Your task to perform on an android device: change keyboard looks Image 0: 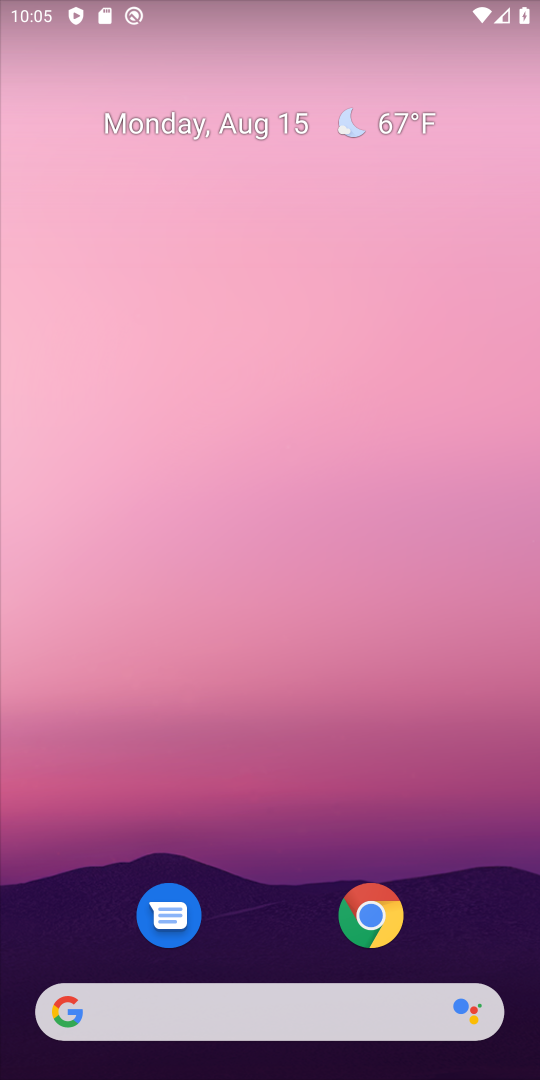
Step 0: drag from (308, 864) to (322, 9)
Your task to perform on an android device: change keyboard looks Image 1: 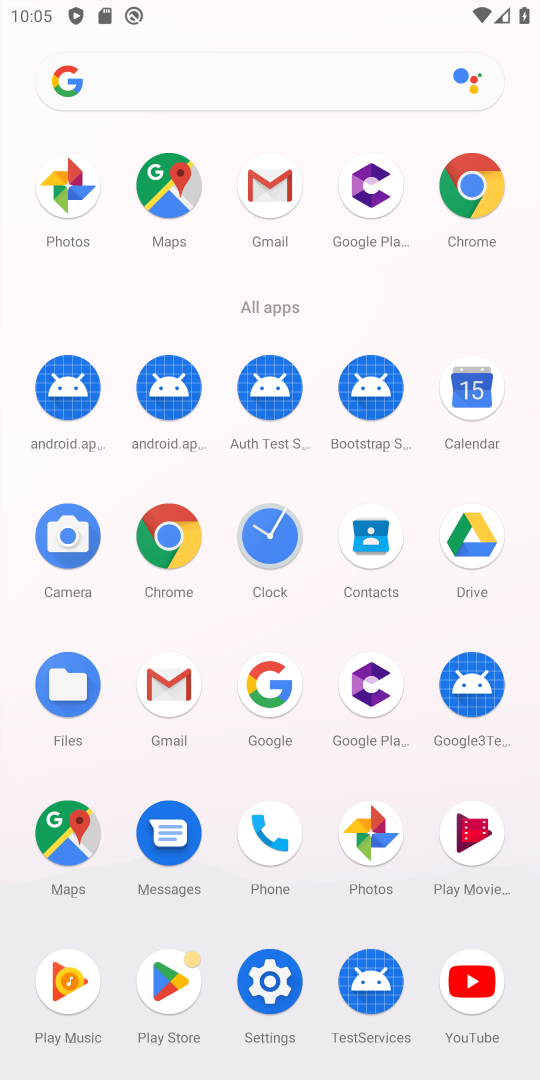
Step 1: click (270, 994)
Your task to perform on an android device: change keyboard looks Image 2: 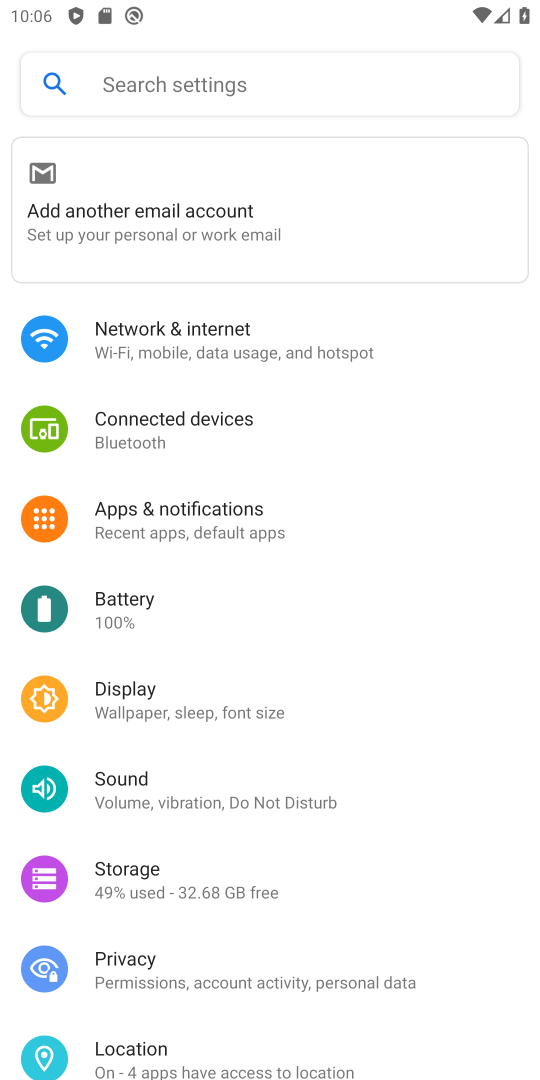
Step 2: drag from (385, 943) to (340, 412)
Your task to perform on an android device: change keyboard looks Image 3: 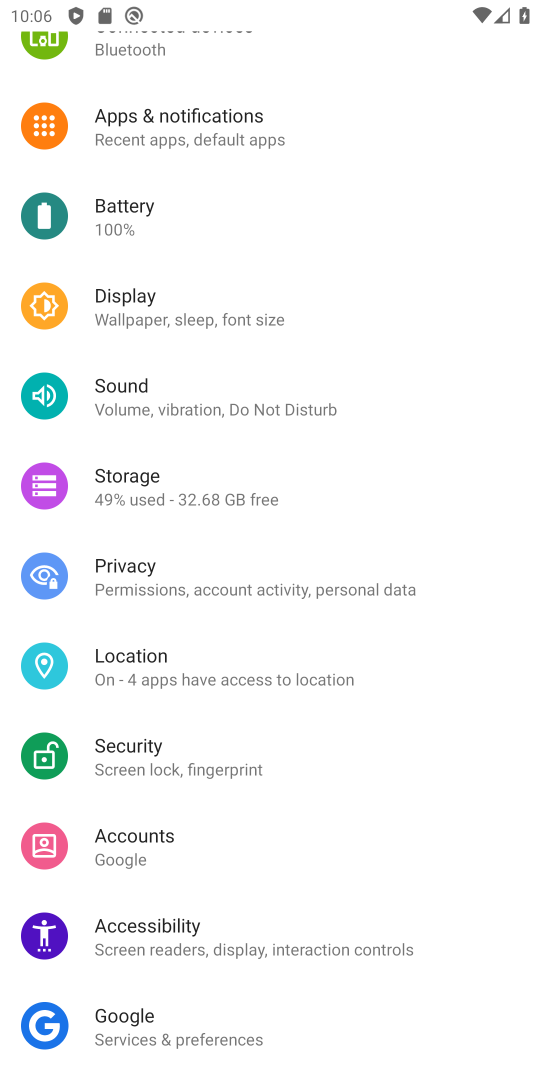
Step 3: drag from (376, 980) to (377, 200)
Your task to perform on an android device: change keyboard looks Image 4: 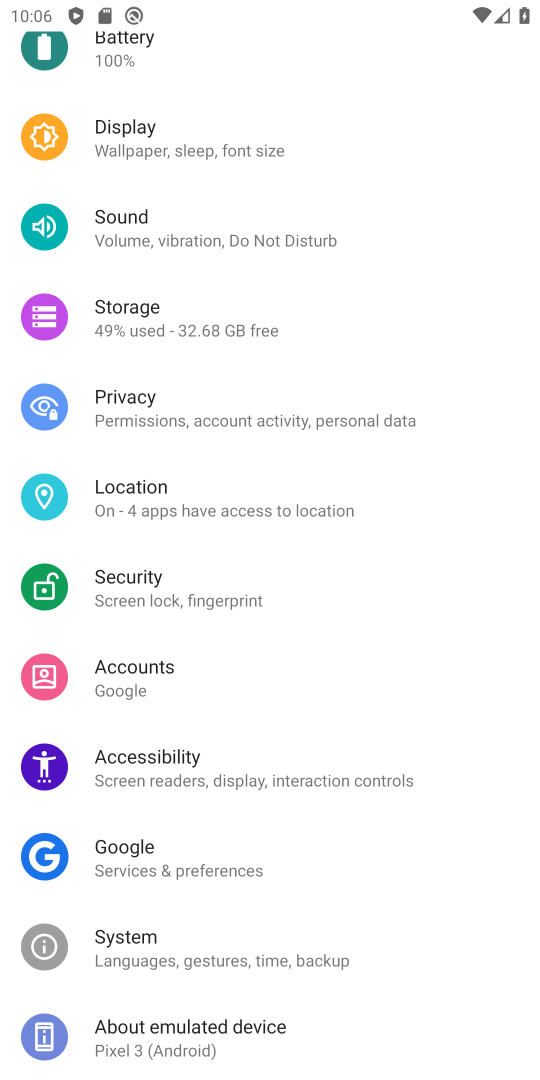
Step 4: click (176, 949)
Your task to perform on an android device: change keyboard looks Image 5: 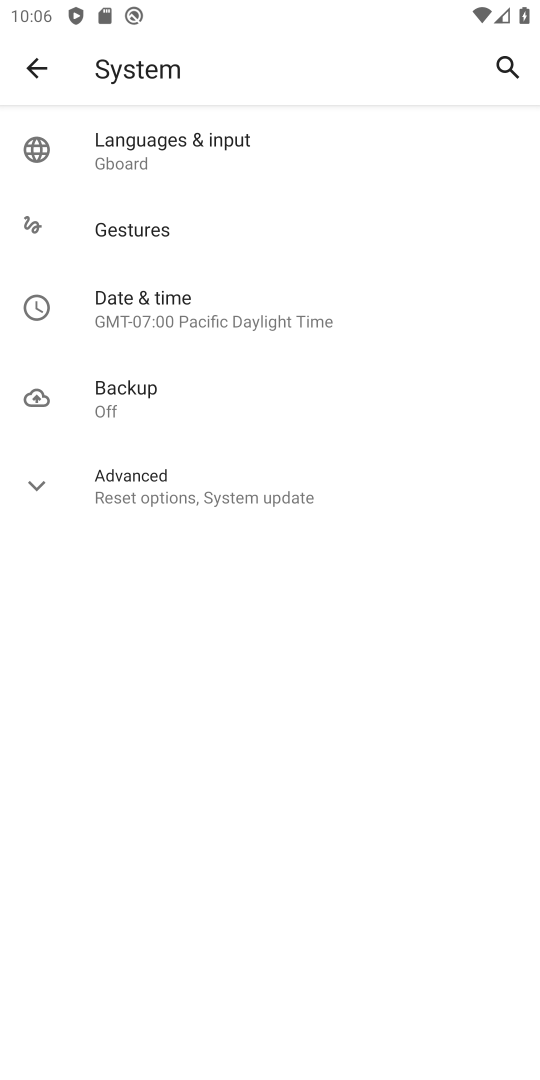
Step 5: click (214, 130)
Your task to perform on an android device: change keyboard looks Image 6: 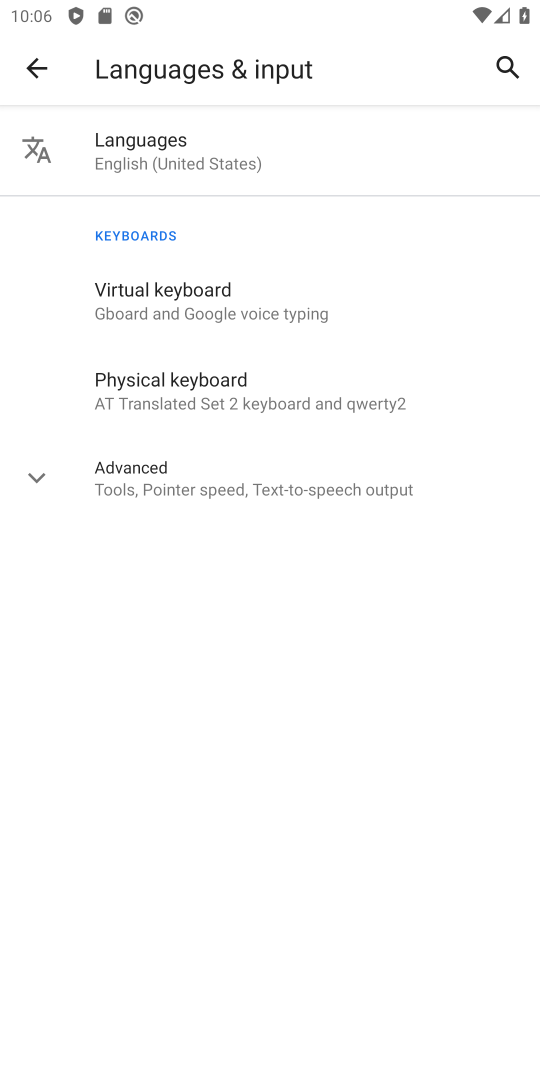
Step 6: click (211, 319)
Your task to perform on an android device: change keyboard looks Image 7: 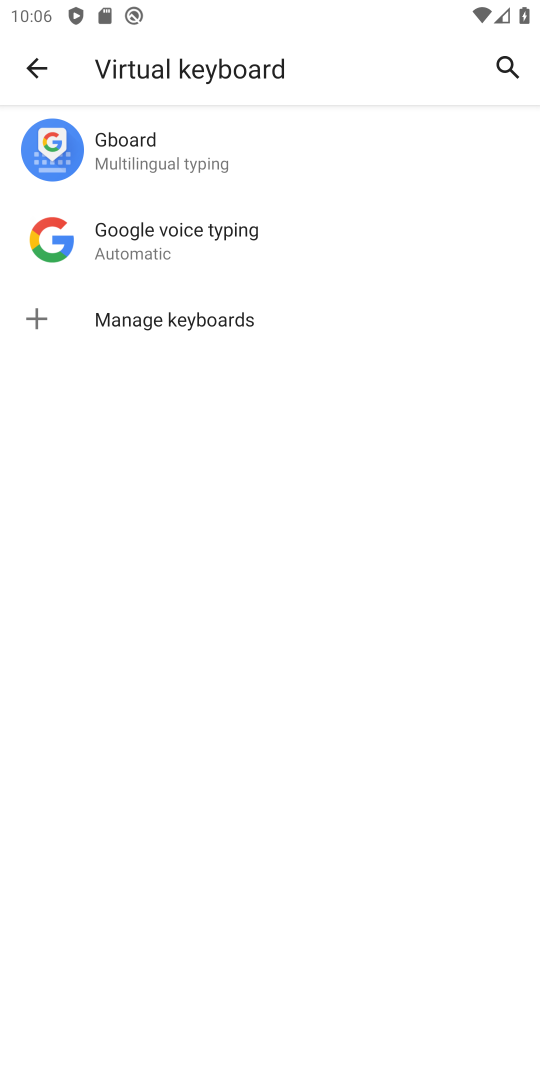
Step 7: click (96, 158)
Your task to perform on an android device: change keyboard looks Image 8: 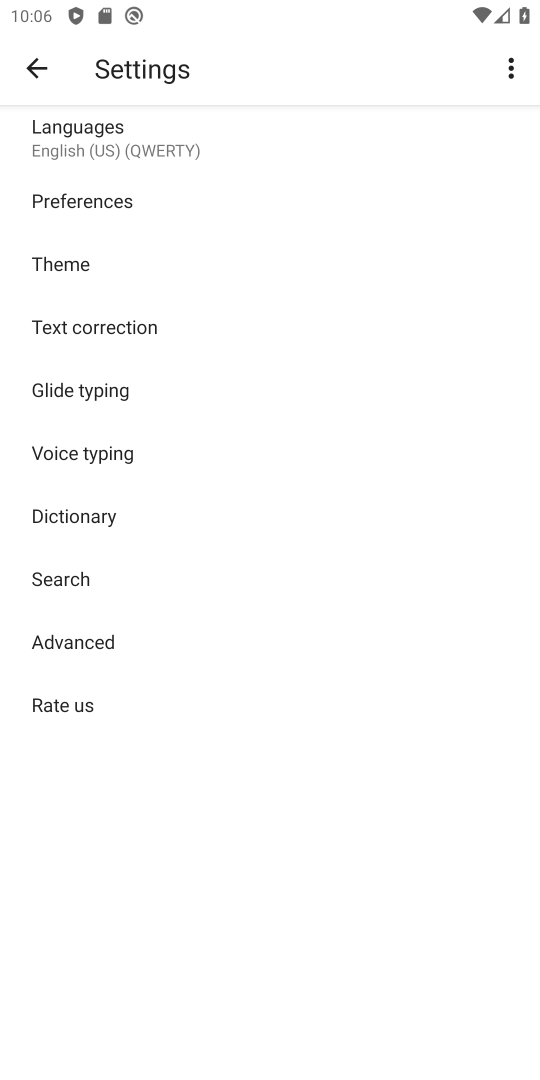
Step 8: click (71, 268)
Your task to perform on an android device: change keyboard looks Image 9: 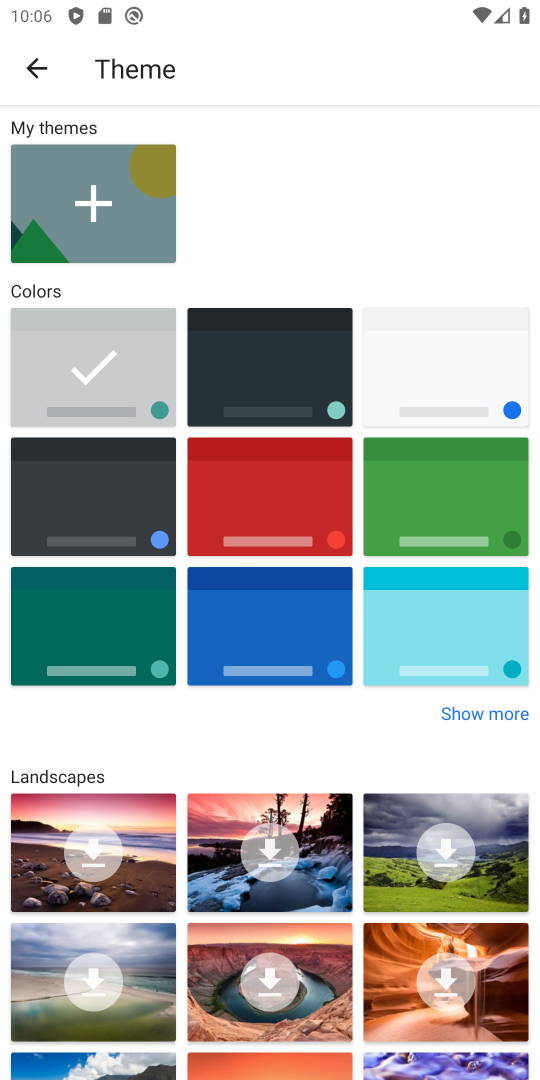
Step 9: click (313, 408)
Your task to perform on an android device: change keyboard looks Image 10: 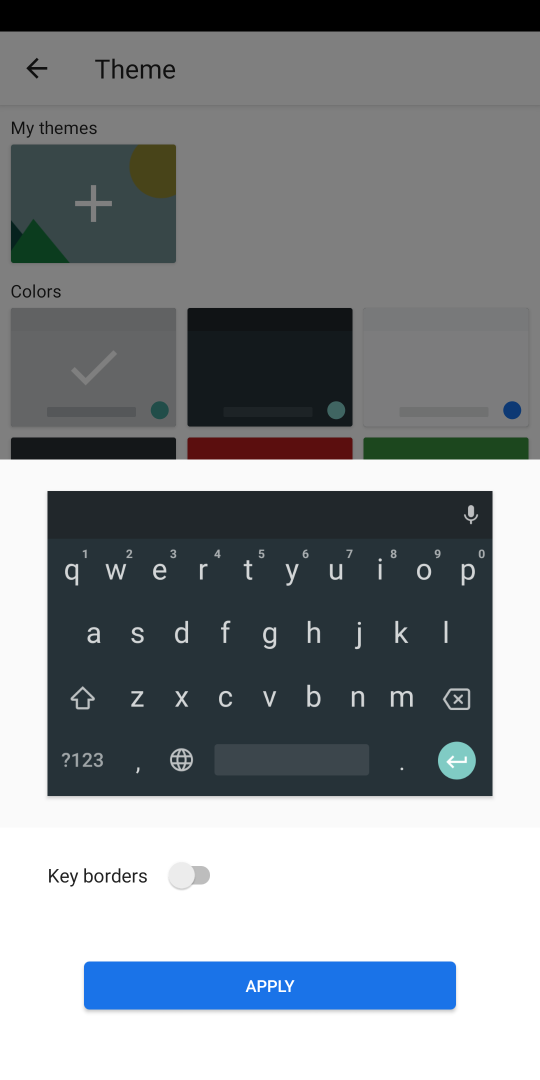
Step 10: click (342, 999)
Your task to perform on an android device: change keyboard looks Image 11: 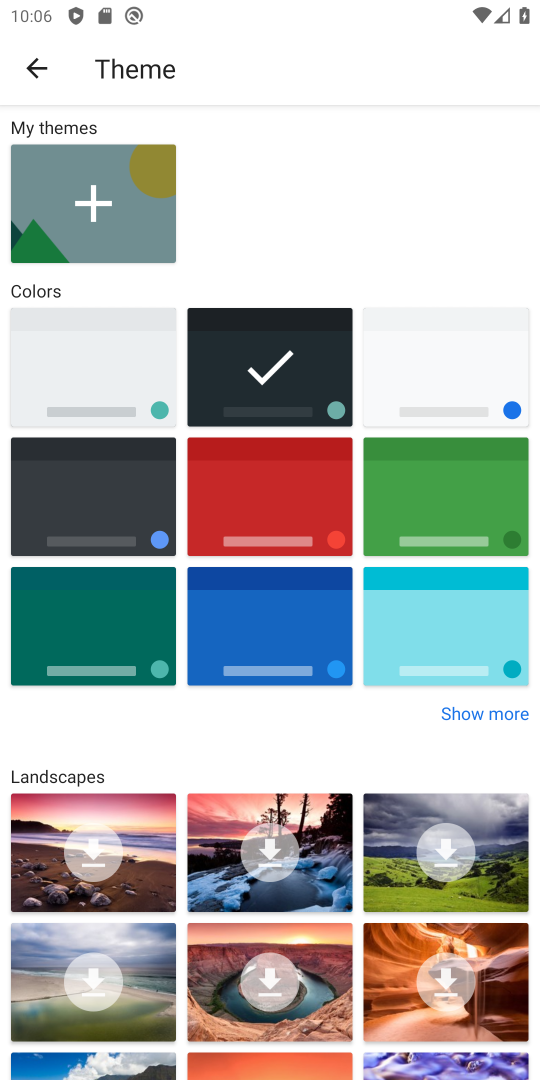
Step 11: task complete